Your task to perform on an android device: add a contact Image 0: 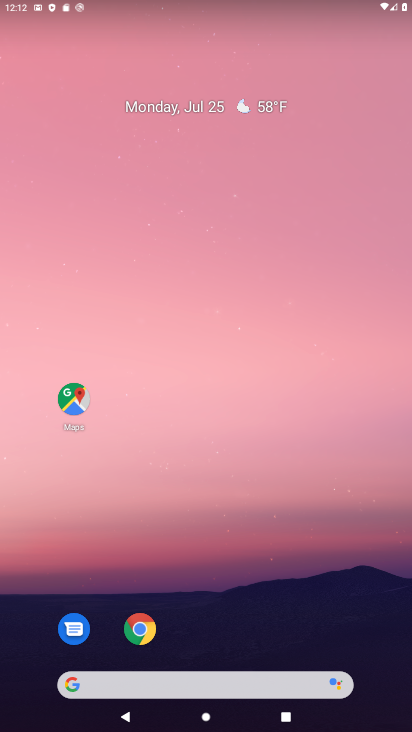
Step 0: click (257, 71)
Your task to perform on an android device: add a contact Image 1: 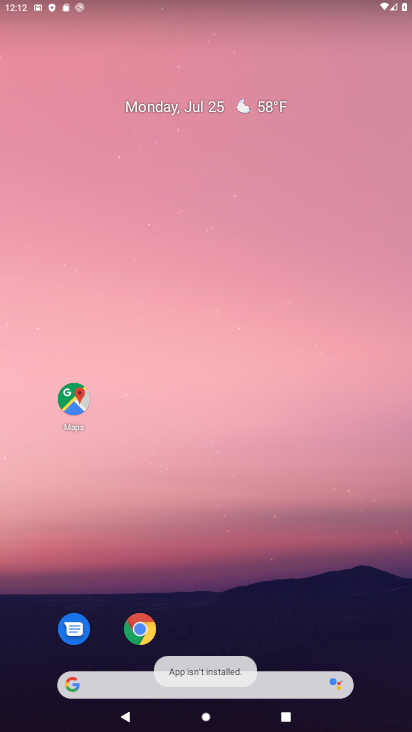
Step 1: drag from (219, 652) to (189, 42)
Your task to perform on an android device: add a contact Image 2: 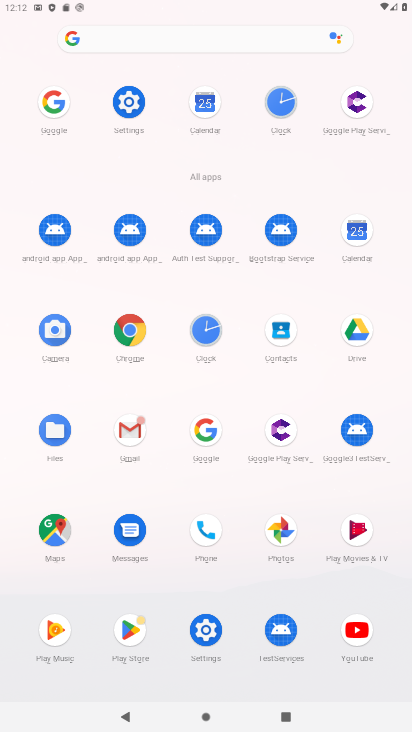
Step 2: click (207, 541)
Your task to perform on an android device: add a contact Image 3: 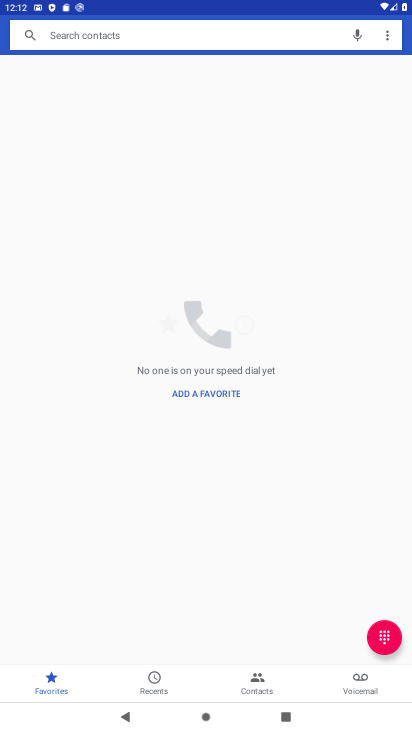
Step 3: click (252, 673)
Your task to perform on an android device: add a contact Image 4: 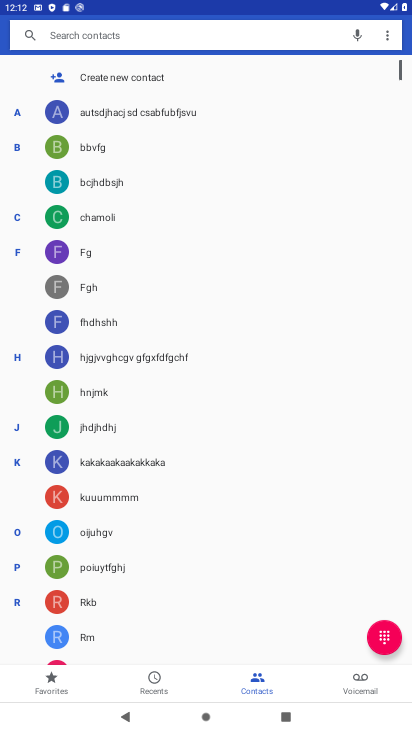
Step 4: click (156, 77)
Your task to perform on an android device: add a contact Image 5: 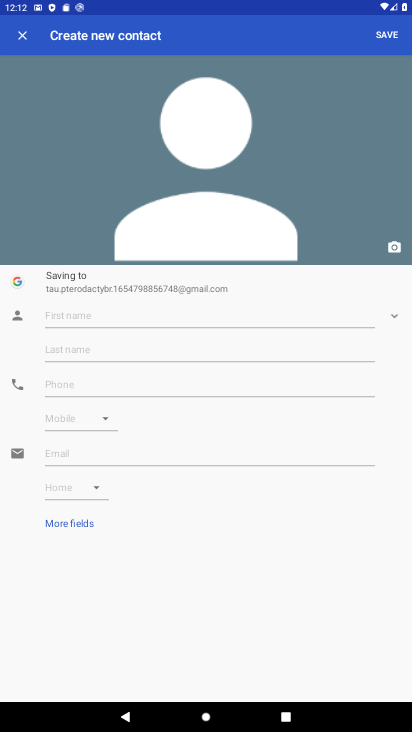
Step 5: click (69, 319)
Your task to perform on an android device: add a contact Image 6: 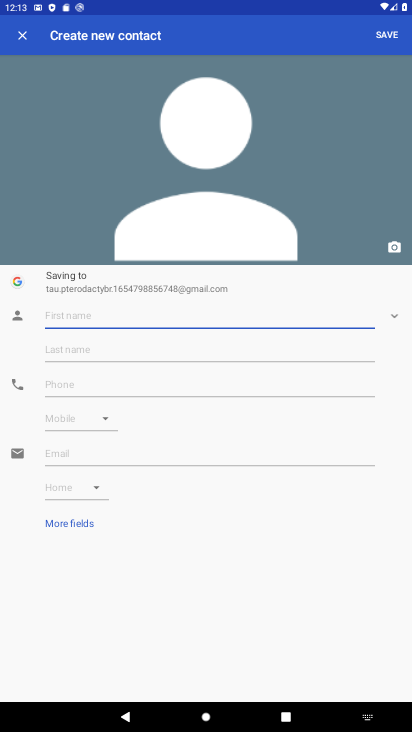
Step 6: type "contact"
Your task to perform on an android device: add a contact Image 7: 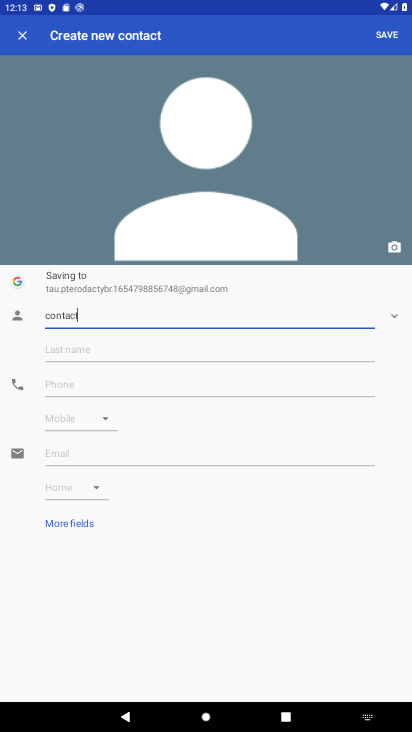
Step 7: type ""
Your task to perform on an android device: add a contact Image 8: 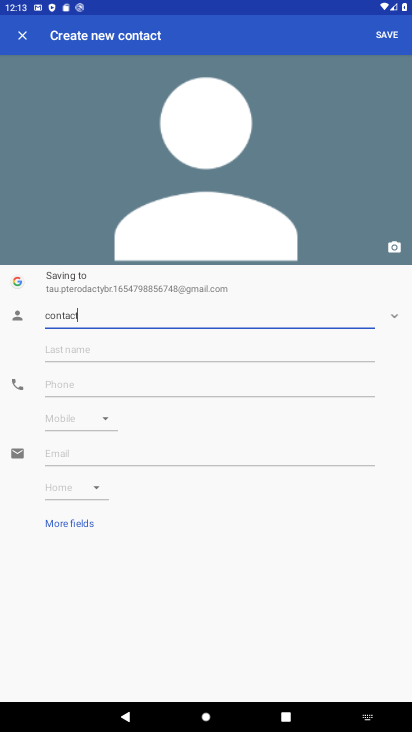
Step 8: click (182, 387)
Your task to perform on an android device: add a contact Image 9: 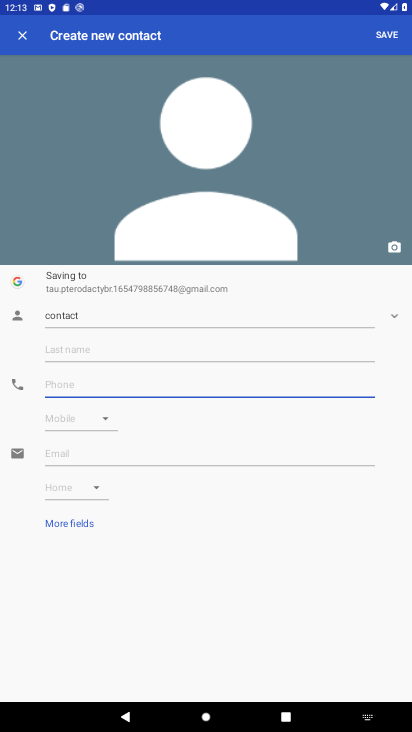
Step 9: type "8877"
Your task to perform on an android device: add a contact Image 10: 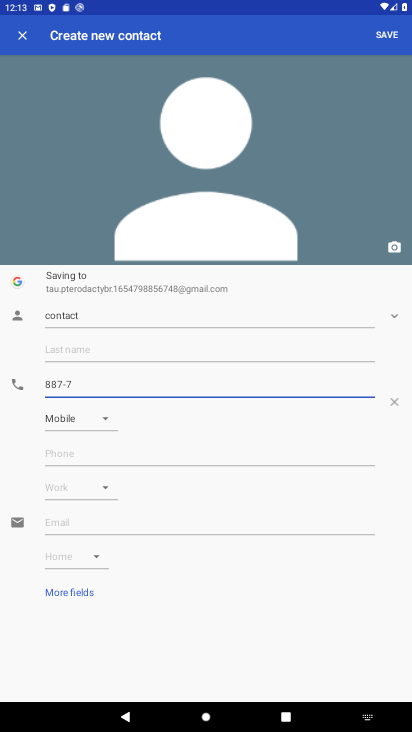
Step 10: type ""
Your task to perform on an android device: add a contact Image 11: 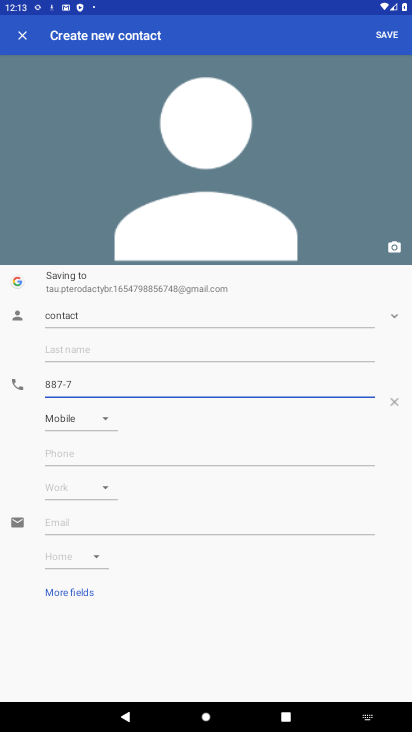
Step 11: click (392, 36)
Your task to perform on an android device: add a contact Image 12: 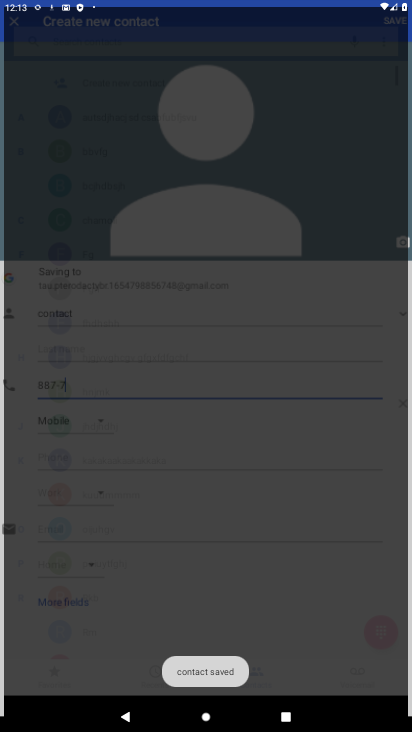
Step 12: task complete